Your task to perform on an android device: Go to CNN.com Image 0: 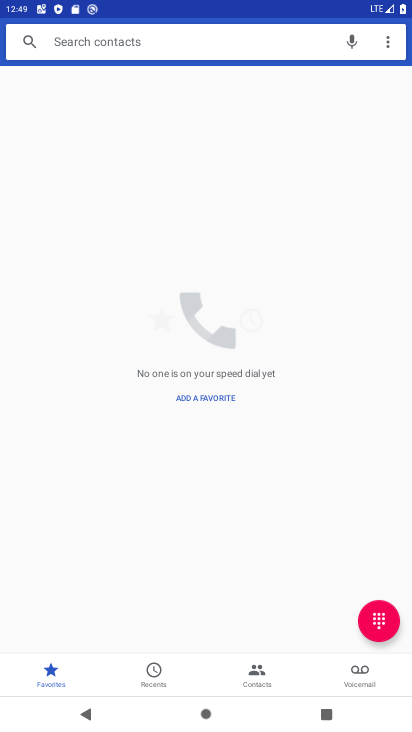
Step 0: press home button
Your task to perform on an android device: Go to CNN.com Image 1: 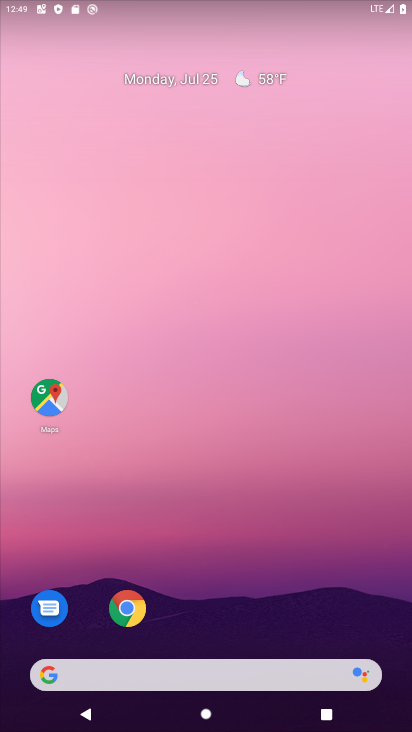
Step 1: click (128, 607)
Your task to perform on an android device: Go to CNN.com Image 2: 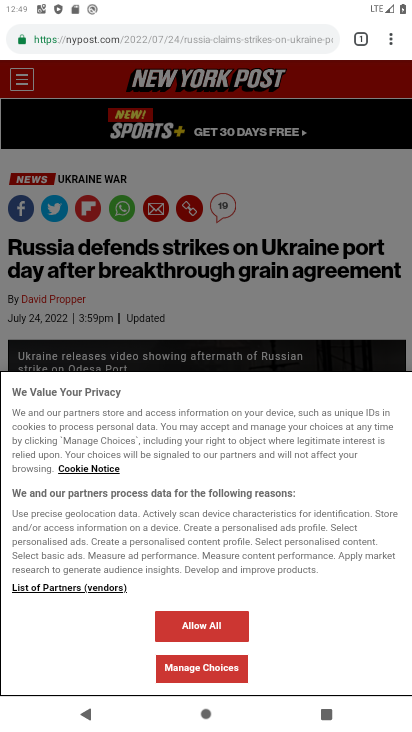
Step 2: click (223, 38)
Your task to perform on an android device: Go to CNN.com Image 3: 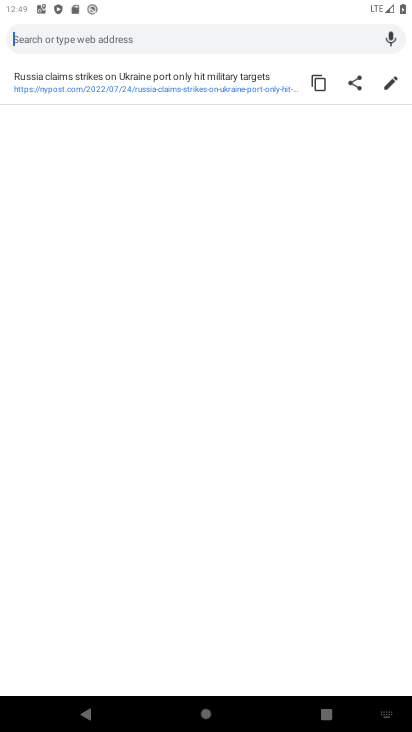
Step 3: type "CNN.com"
Your task to perform on an android device: Go to CNN.com Image 4: 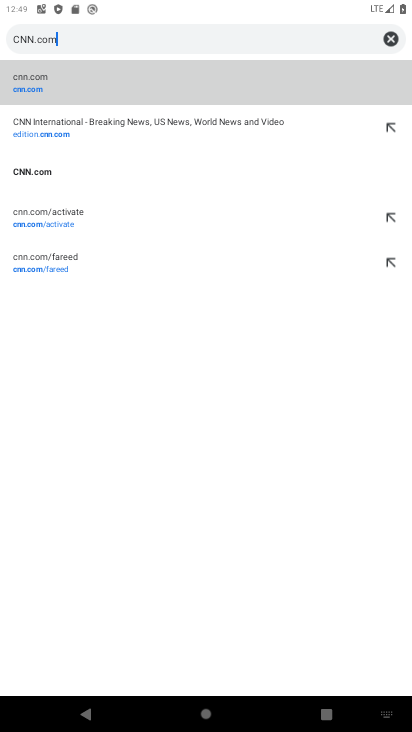
Step 4: click (32, 176)
Your task to perform on an android device: Go to CNN.com Image 5: 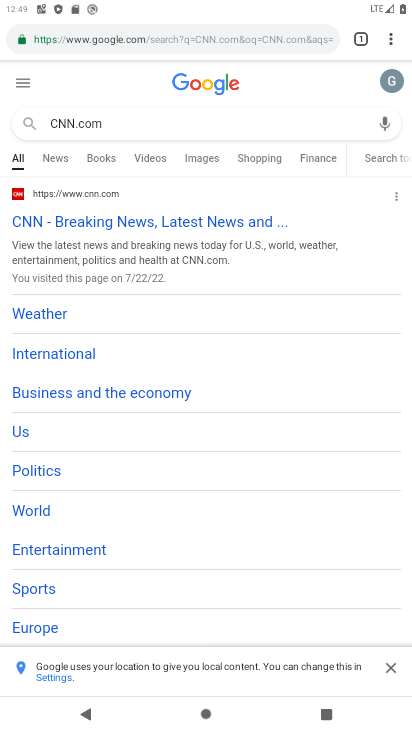
Step 5: click (104, 219)
Your task to perform on an android device: Go to CNN.com Image 6: 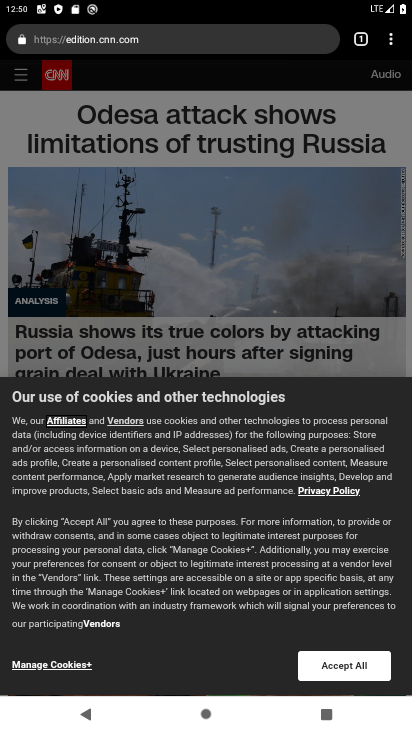
Step 6: task complete